Your task to perform on an android device: change keyboard looks Image 0: 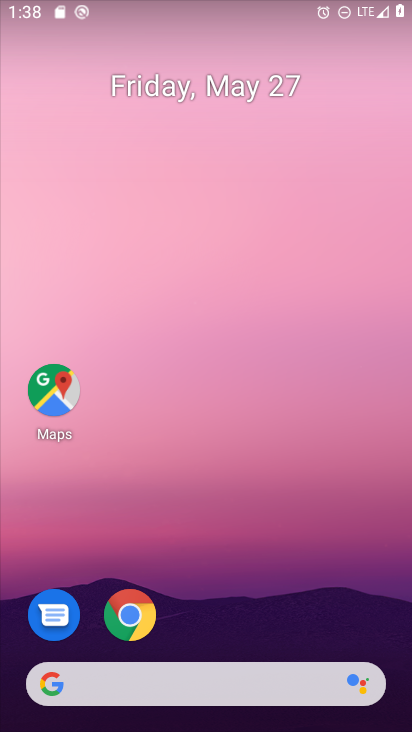
Step 0: drag from (285, 661) to (269, 0)
Your task to perform on an android device: change keyboard looks Image 1: 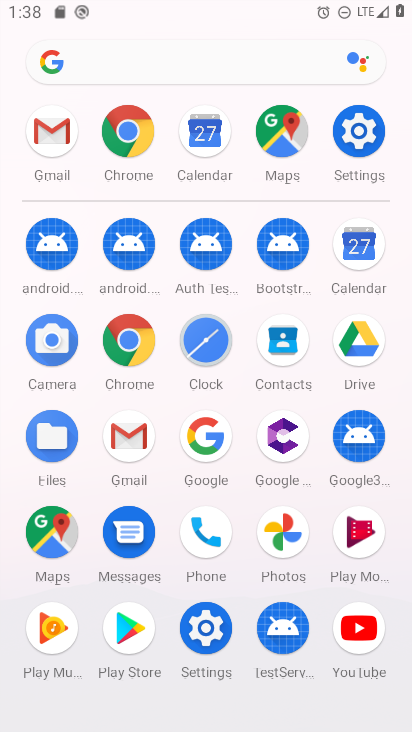
Step 1: click (353, 121)
Your task to perform on an android device: change keyboard looks Image 2: 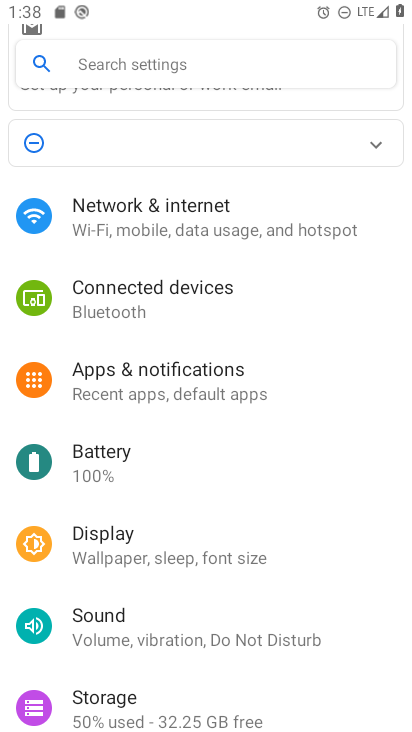
Step 2: drag from (278, 667) to (316, 81)
Your task to perform on an android device: change keyboard looks Image 3: 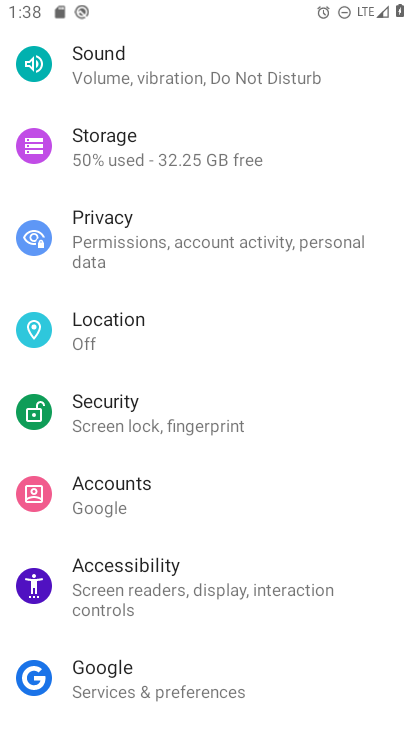
Step 3: drag from (177, 667) to (200, 103)
Your task to perform on an android device: change keyboard looks Image 4: 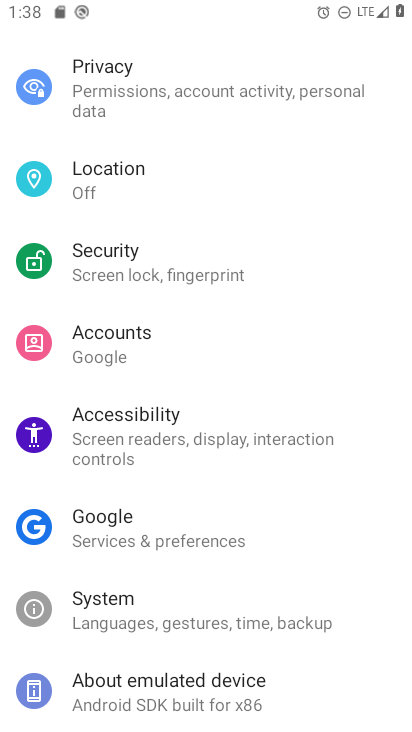
Step 4: drag from (242, 183) to (289, 103)
Your task to perform on an android device: change keyboard looks Image 5: 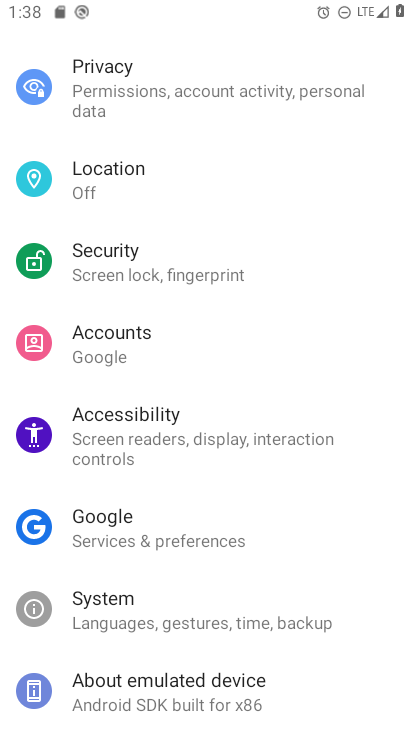
Step 5: click (236, 636)
Your task to perform on an android device: change keyboard looks Image 6: 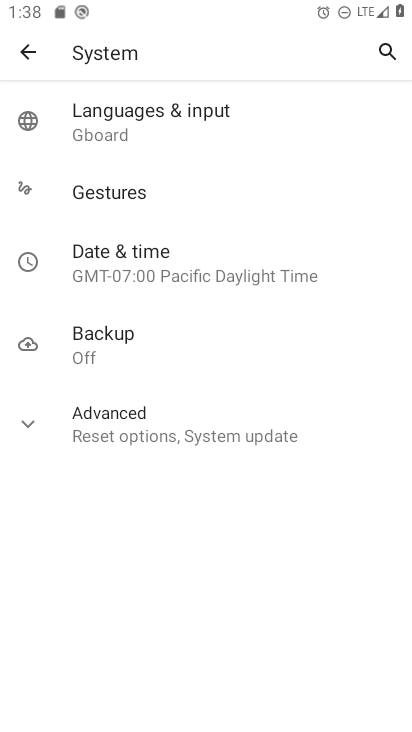
Step 6: click (167, 128)
Your task to perform on an android device: change keyboard looks Image 7: 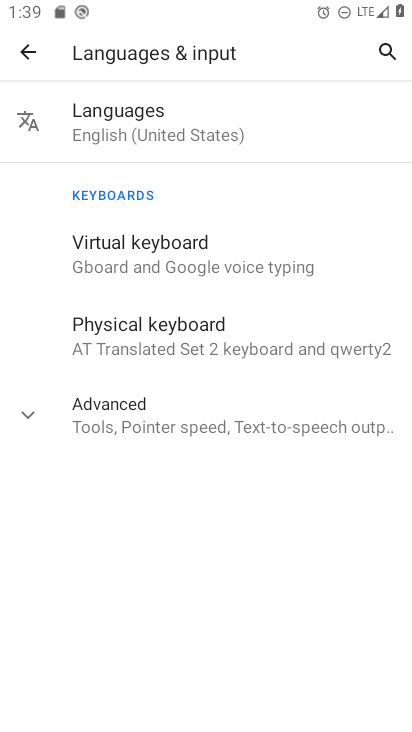
Step 7: click (198, 263)
Your task to perform on an android device: change keyboard looks Image 8: 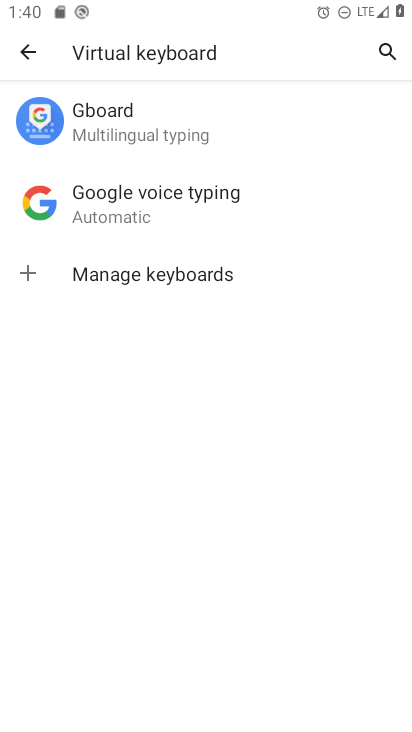
Step 8: click (230, 116)
Your task to perform on an android device: change keyboard looks Image 9: 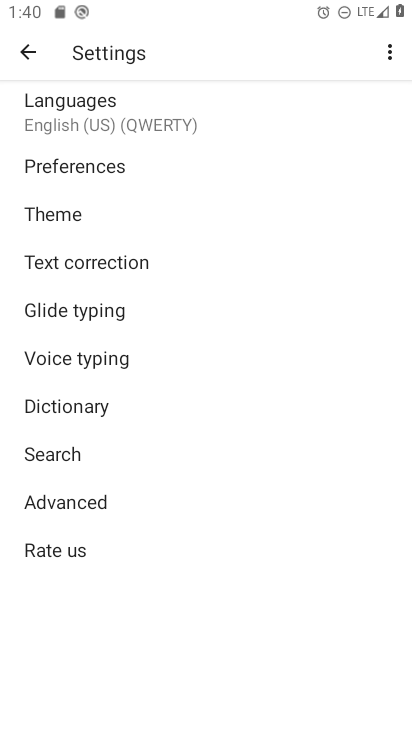
Step 9: click (85, 207)
Your task to perform on an android device: change keyboard looks Image 10: 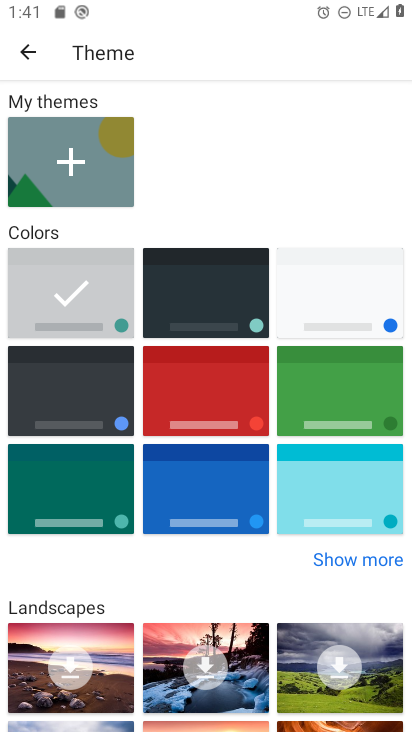
Step 10: click (226, 398)
Your task to perform on an android device: change keyboard looks Image 11: 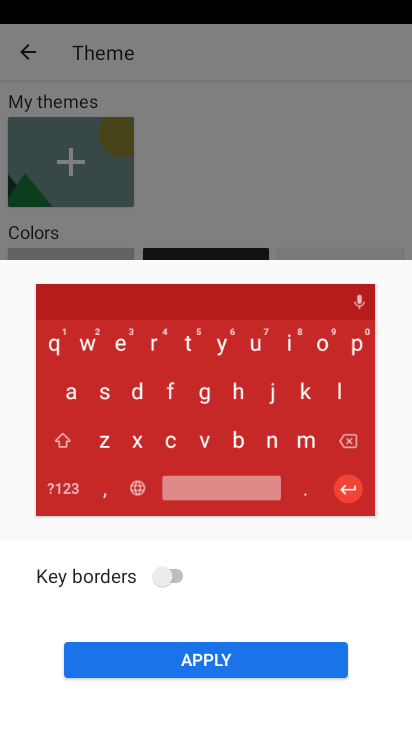
Step 11: click (187, 655)
Your task to perform on an android device: change keyboard looks Image 12: 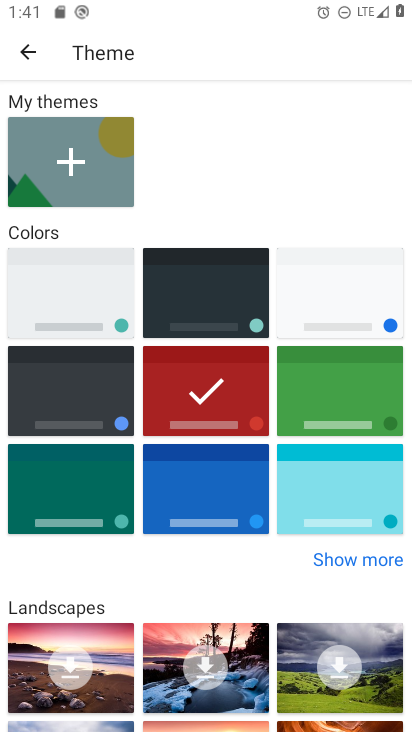
Step 12: task complete